Your task to perform on an android device: Go to Android settings Image 0: 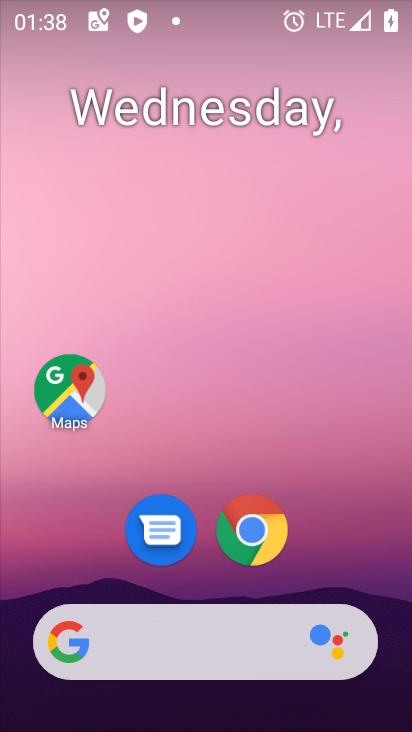
Step 0: press home button
Your task to perform on an android device: Go to Android settings Image 1: 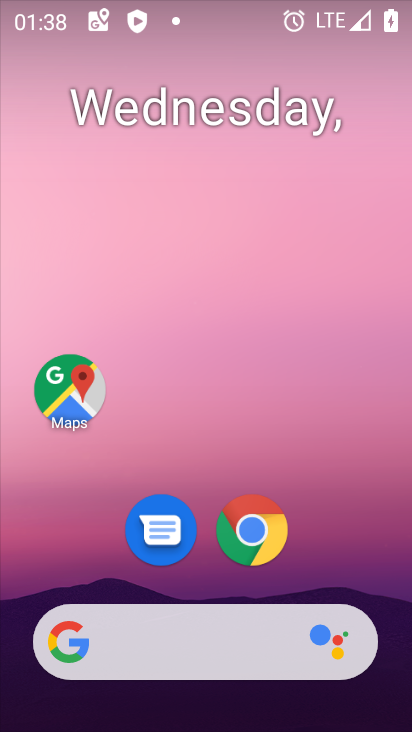
Step 1: drag from (362, 543) to (373, 128)
Your task to perform on an android device: Go to Android settings Image 2: 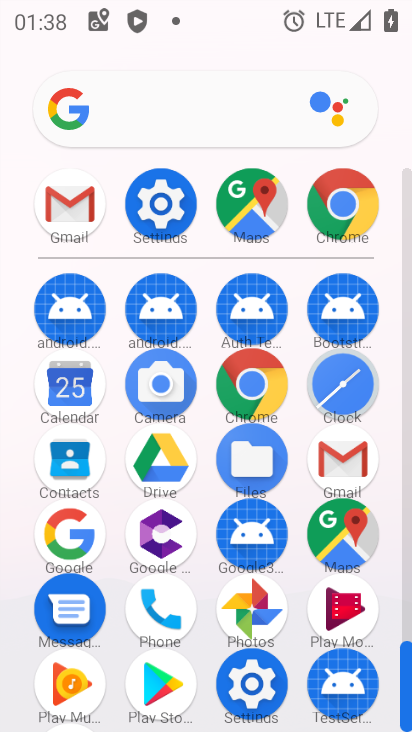
Step 2: click (159, 201)
Your task to perform on an android device: Go to Android settings Image 3: 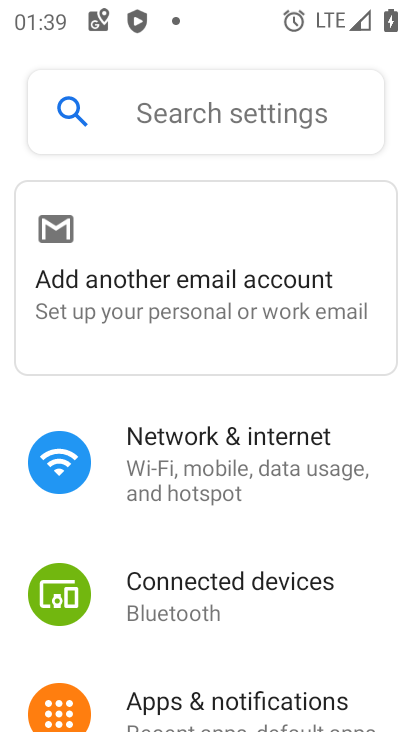
Step 3: drag from (243, 625) to (269, 282)
Your task to perform on an android device: Go to Android settings Image 4: 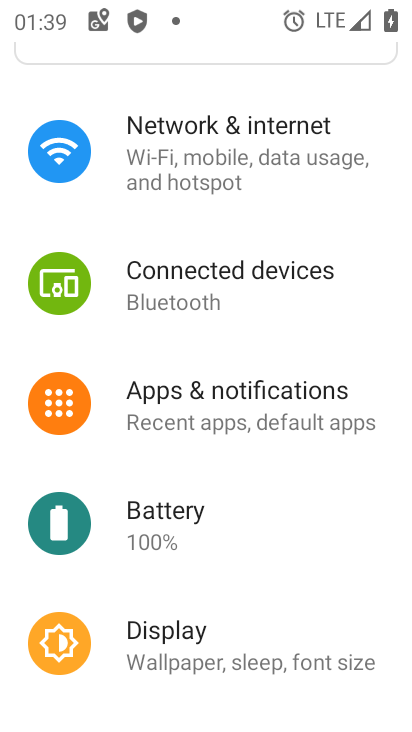
Step 4: drag from (263, 577) to (285, 150)
Your task to perform on an android device: Go to Android settings Image 5: 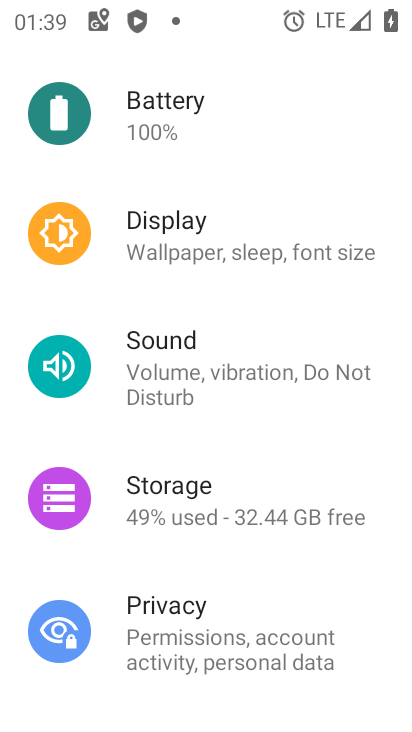
Step 5: drag from (224, 592) to (282, 171)
Your task to perform on an android device: Go to Android settings Image 6: 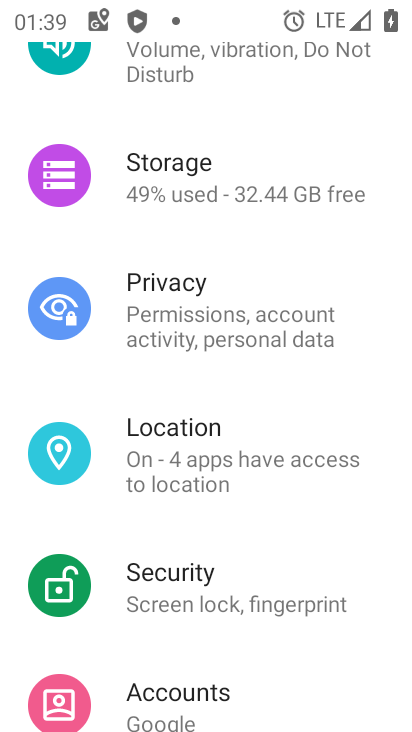
Step 6: drag from (210, 647) to (248, 152)
Your task to perform on an android device: Go to Android settings Image 7: 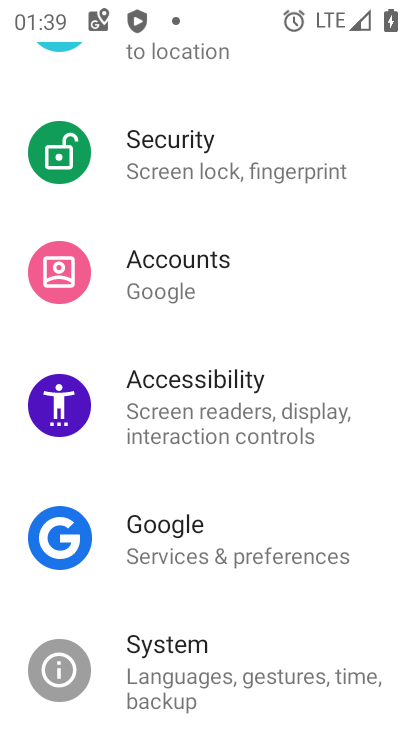
Step 7: drag from (251, 611) to (287, 193)
Your task to perform on an android device: Go to Android settings Image 8: 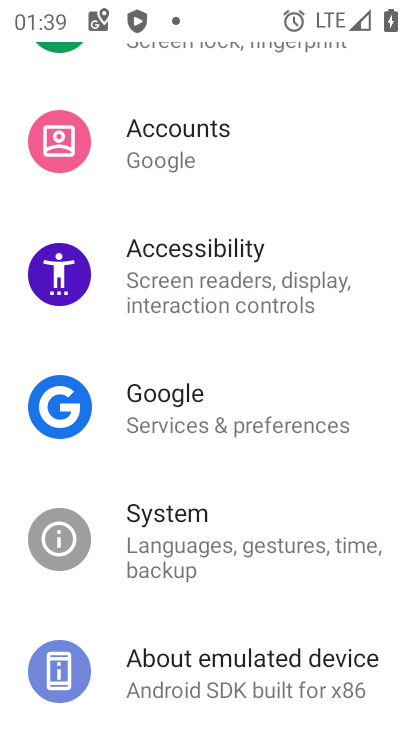
Step 8: click (200, 697)
Your task to perform on an android device: Go to Android settings Image 9: 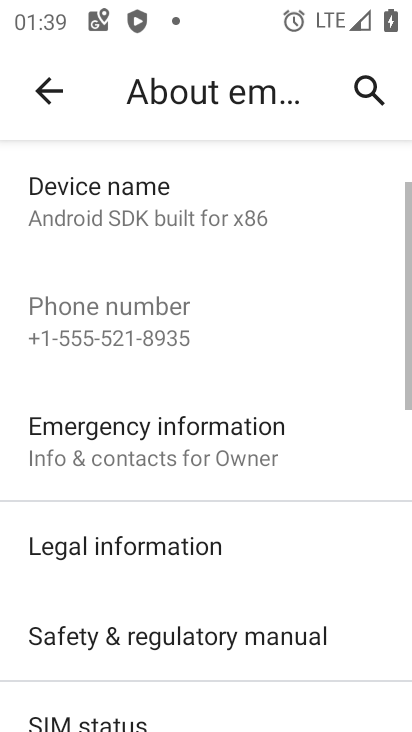
Step 9: drag from (254, 675) to (286, 238)
Your task to perform on an android device: Go to Android settings Image 10: 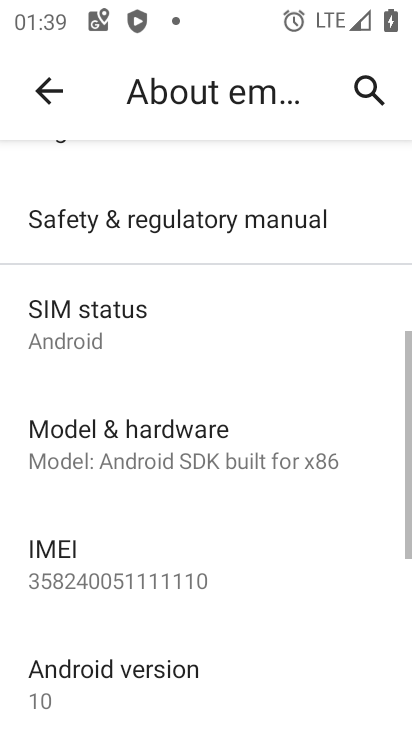
Step 10: drag from (257, 583) to (255, 210)
Your task to perform on an android device: Go to Android settings Image 11: 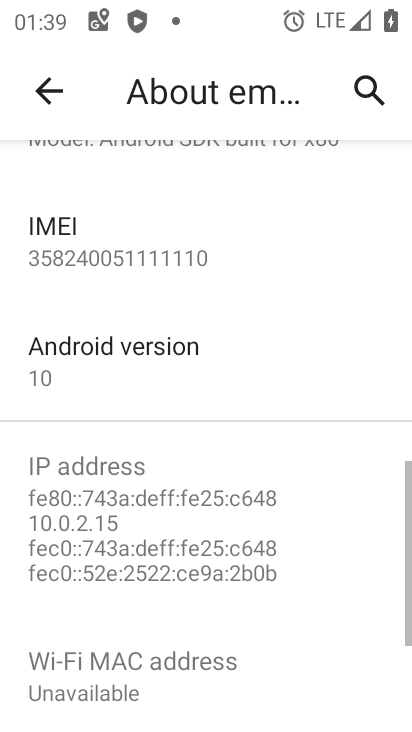
Step 11: click (206, 344)
Your task to perform on an android device: Go to Android settings Image 12: 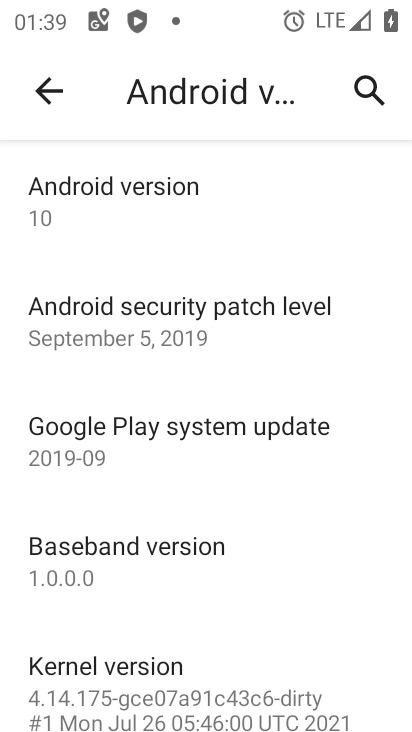
Step 12: task complete